Your task to perform on an android device: Open calendar and show me the third week of next month Image 0: 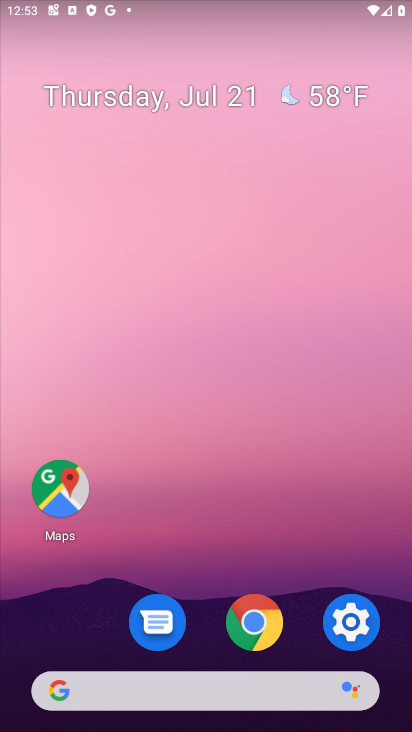
Step 0: drag from (258, 705) to (330, 145)
Your task to perform on an android device: Open calendar and show me the third week of next month Image 1: 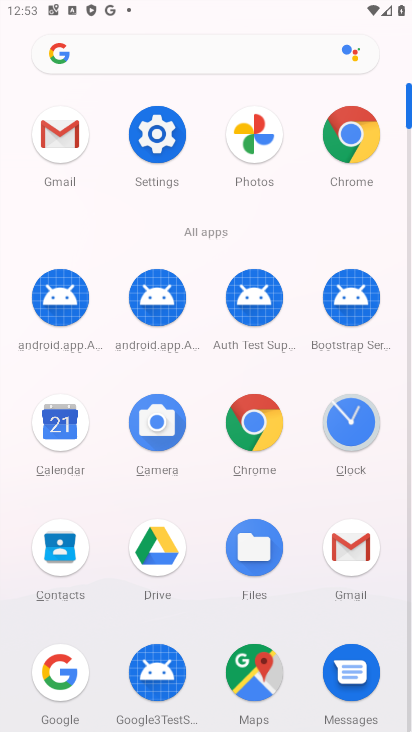
Step 1: click (62, 419)
Your task to perform on an android device: Open calendar and show me the third week of next month Image 2: 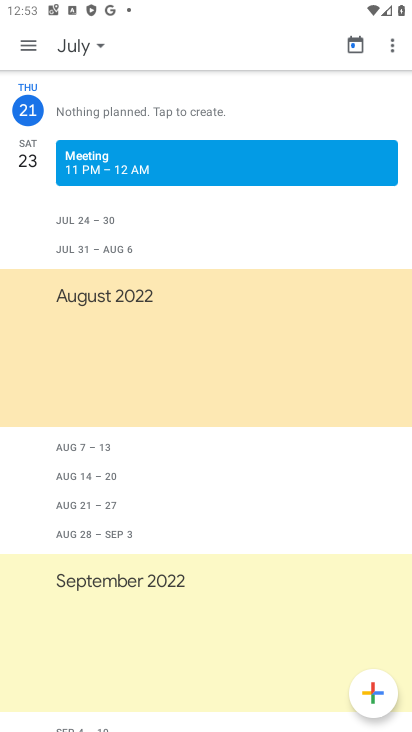
Step 2: click (29, 41)
Your task to perform on an android device: Open calendar and show me the third week of next month Image 3: 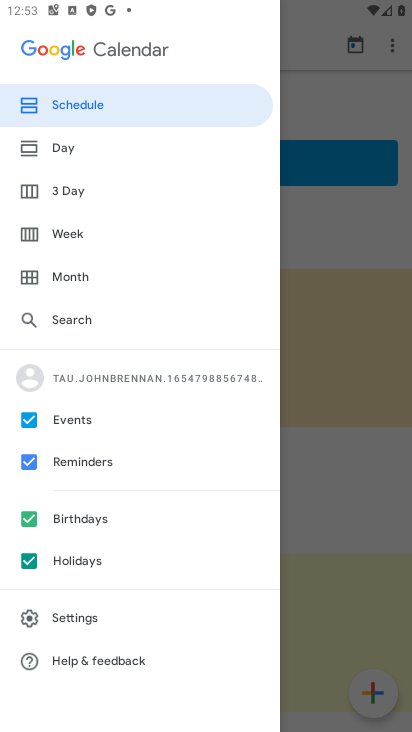
Step 3: click (76, 275)
Your task to perform on an android device: Open calendar and show me the third week of next month Image 4: 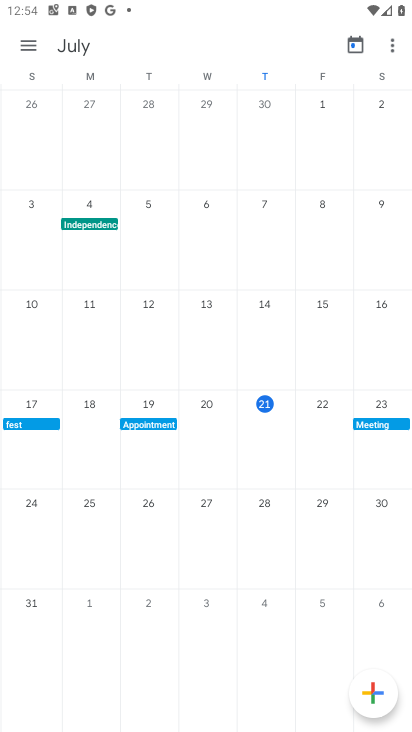
Step 4: drag from (382, 353) to (0, 282)
Your task to perform on an android device: Open calendar and show me the third week of next month Image 5: 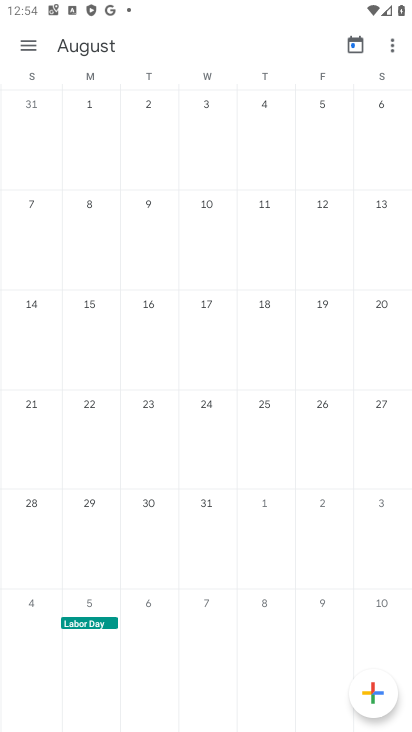
Step 5: click (84, 337)
Your task to perform on an android device: Open calendar and show me the third week of next month Image 6: 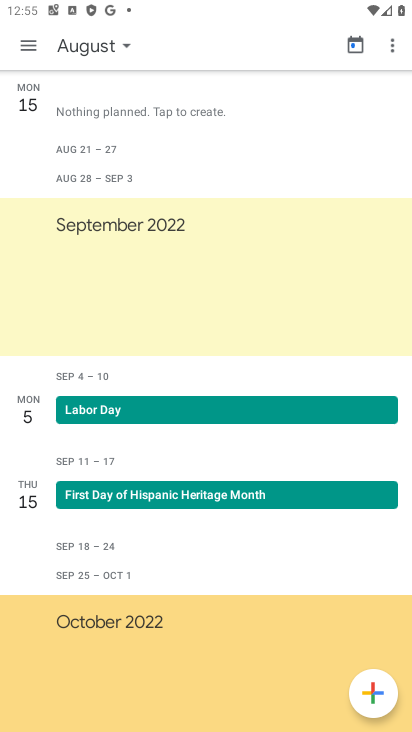
Step 6: task complete